Your task to perform on an android device: check data usage Image 0: 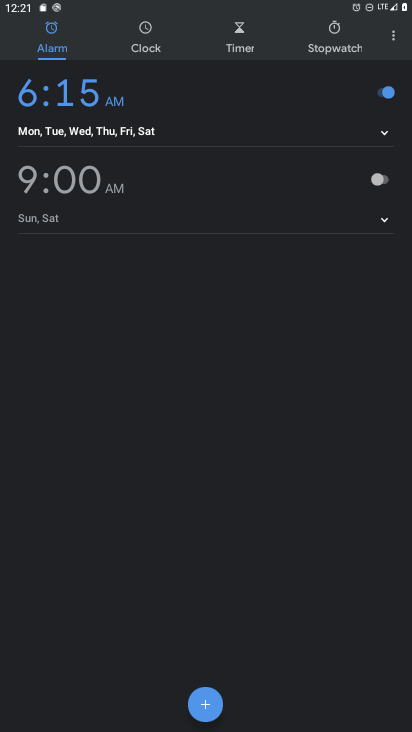
Step 0: press home button
Your task to perform on an android device: check data usage Image 1: 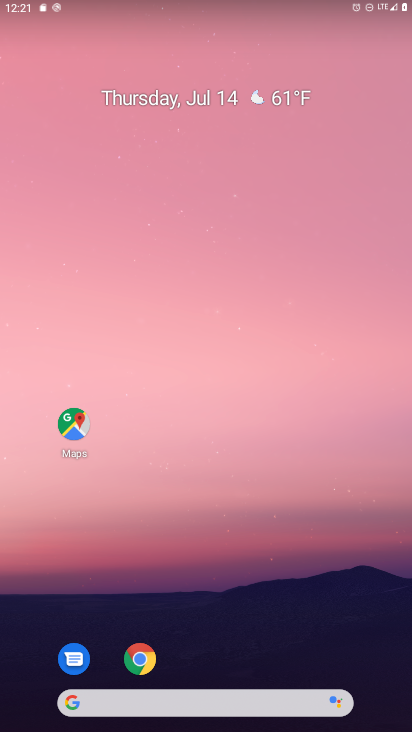
Step 1: drag from (375, 668) to (292, 32)
Your task to perform on an android device: check data usage Image 2: 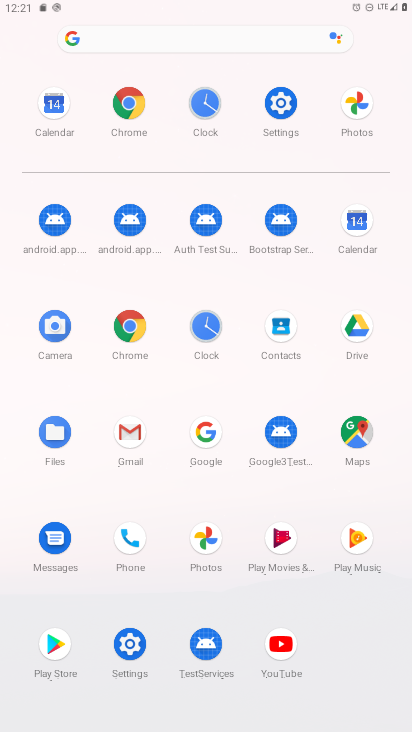
Step 2: click (280, 103)
Your task to perform on an android device: check data usage Image 3: 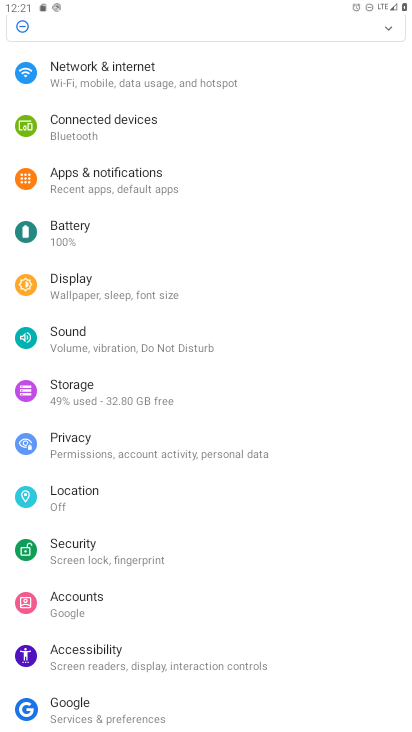
Step 3: click (97, 76)
Your task to perform on an android device: check data usage Image 4: 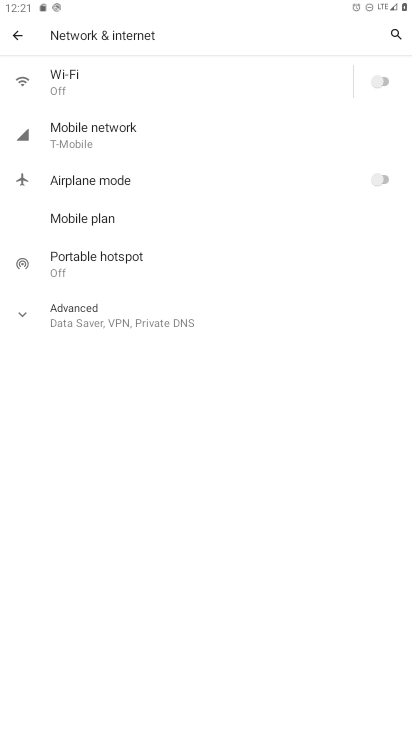
Step 4: click (68, 138)
Your task to perform on an android device: check data usage Image 5: 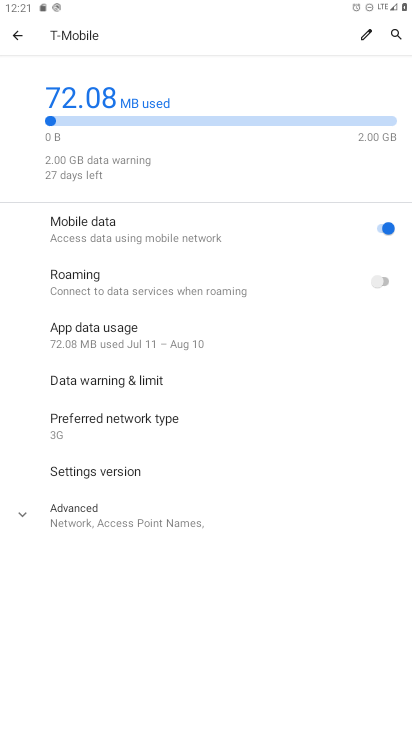
Step 5: task complete